Your task to perform on an android device: Go to ESPN.com Image 0: 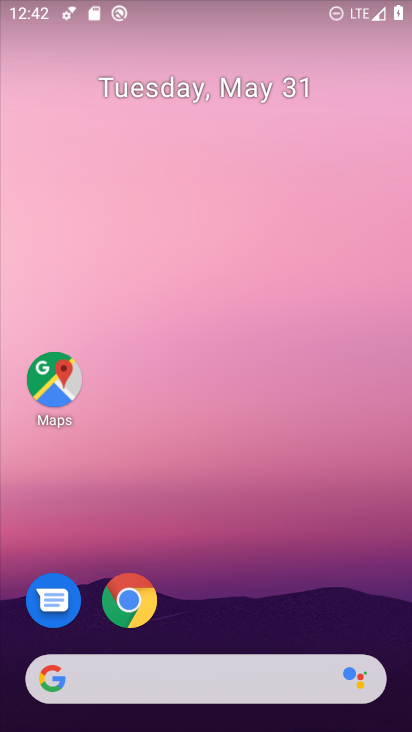
Step 0: click (124, 594)
Your task to perform on an android device: Go to ESPN.com Image 1: 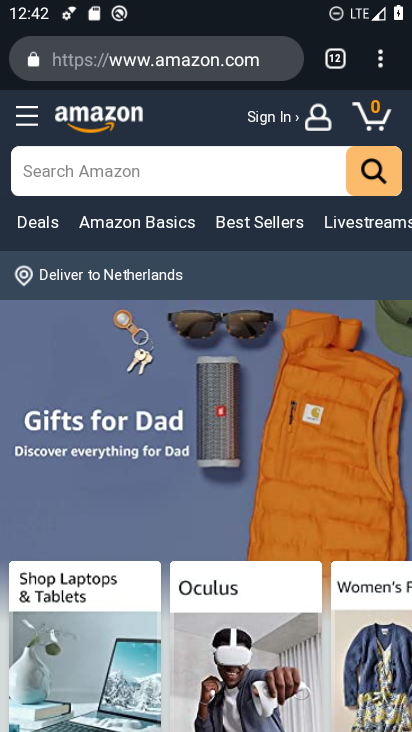
Step 1: click (382, 66)
Your task to perform on an android device: Go to ESPN.com Image 2: 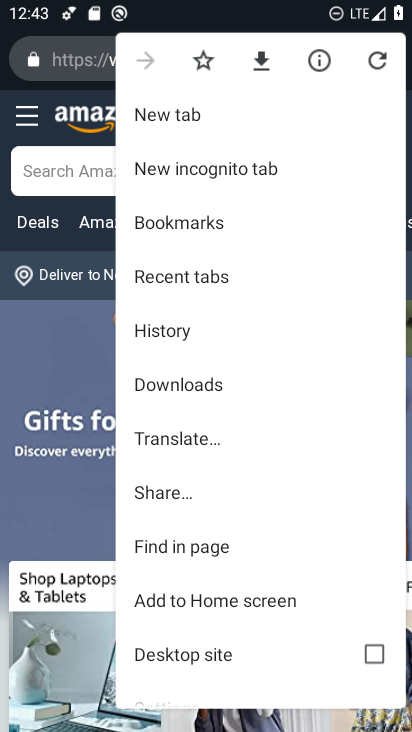
Step 2: click (180, 110)
Your task to perform on an android device: Go to ESPN.com Image 3: 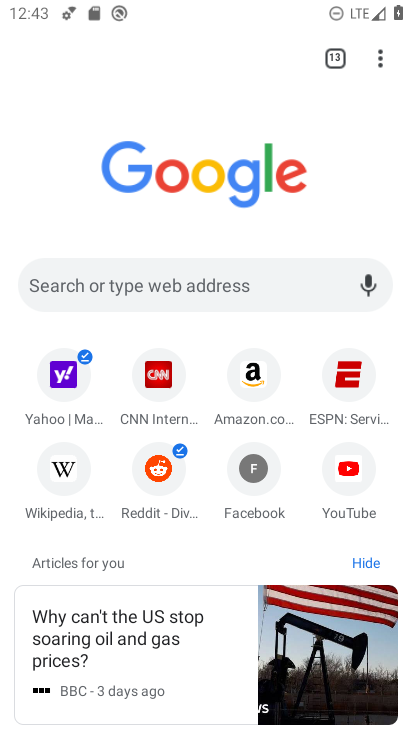
Step 3: click (351, 377)
Your task to perform on an android device: Go to ESPN.com Image 4: 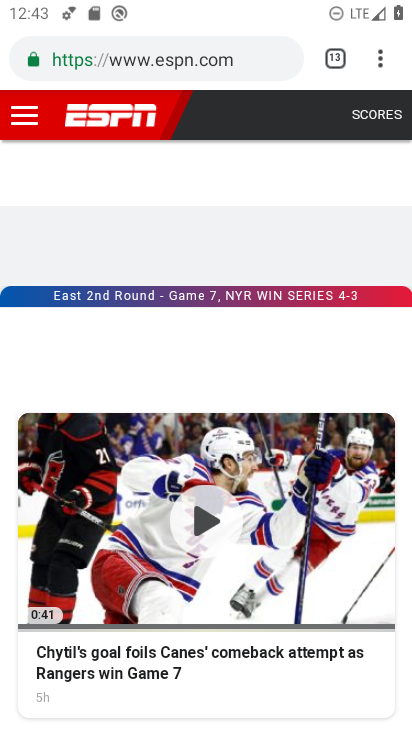
Step 4: task complete